Your task to perform on an android device: Open ESPN.com Image 0: 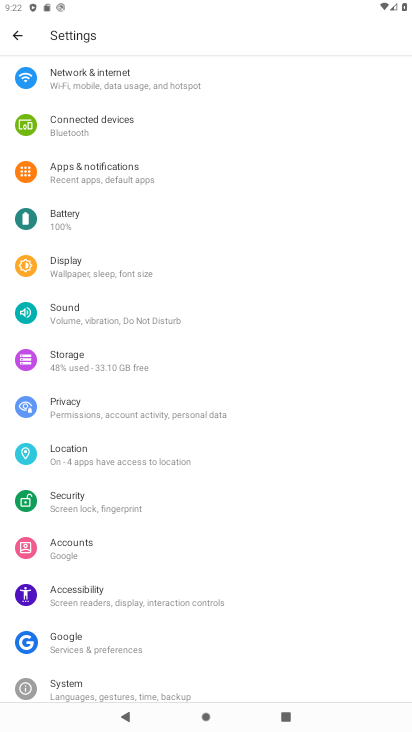
Step 0: press home button
Your task to perform on an android device: Open ESPN.com Image 1: 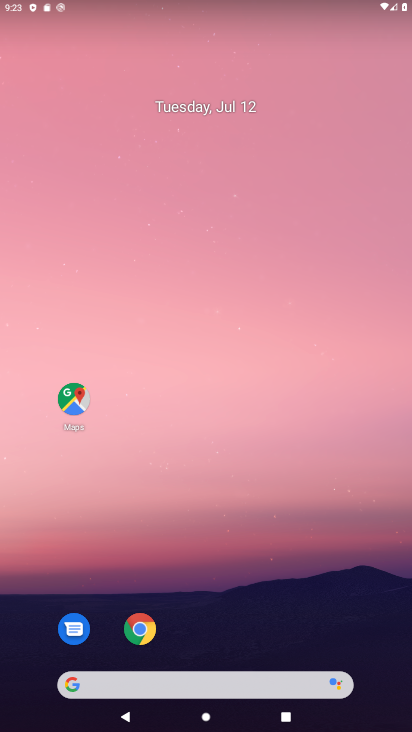
Step 1: click (144, 619)
Your task to perform on an android device: Open ESPN.com Image 2: 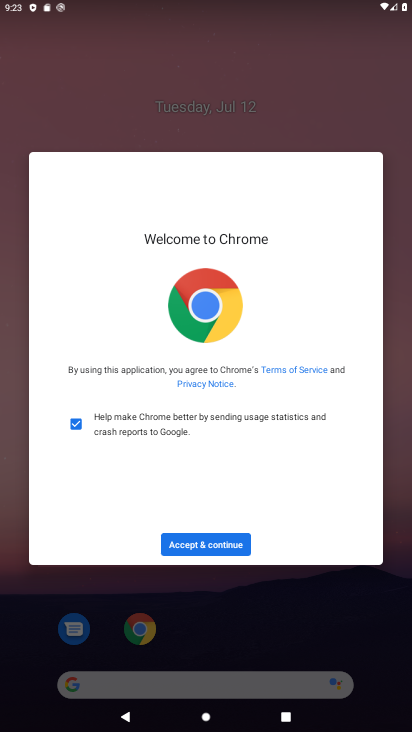
Step 2: click (217, 540)
Your task to perform on an android device: Open ESPN.com Image 3: 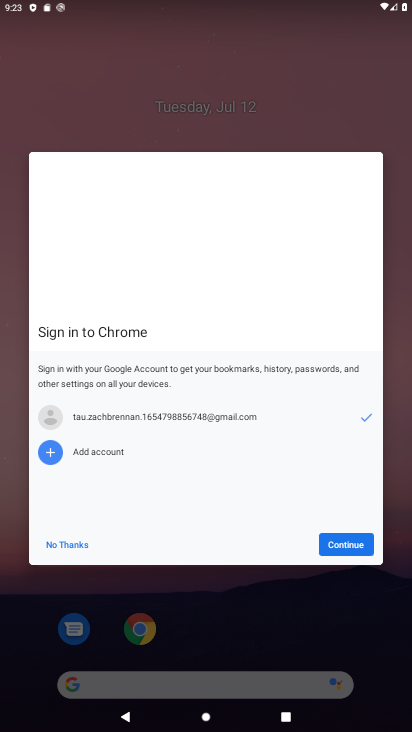
Step 3: click (359, 540)
Your task to perform on an android device: Open ESPN.com Image 4: 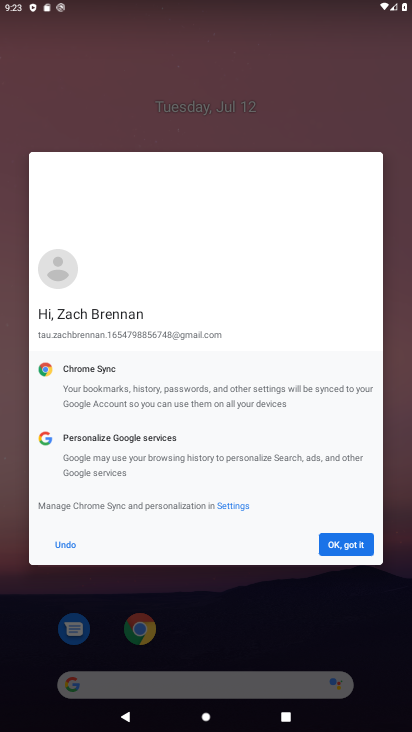
Step 4: click (362, 553)
Your task to perform on an android device: Open ESPN.com Image 5: 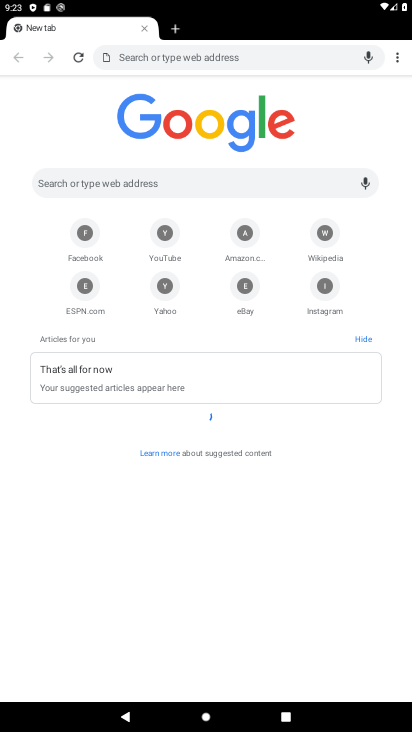
Step 5: click (79, 299)
Your task to perform on an android device: Open ESPN.com Image 6: 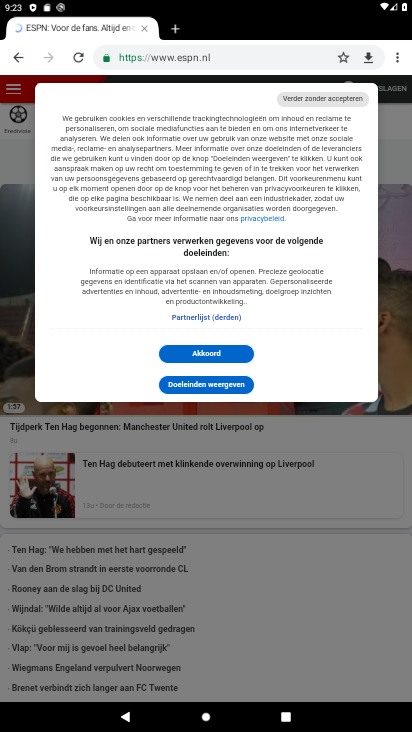
Step 6: task complete